Your task to perform on an android device: turn off notifications in google photos Image 0: 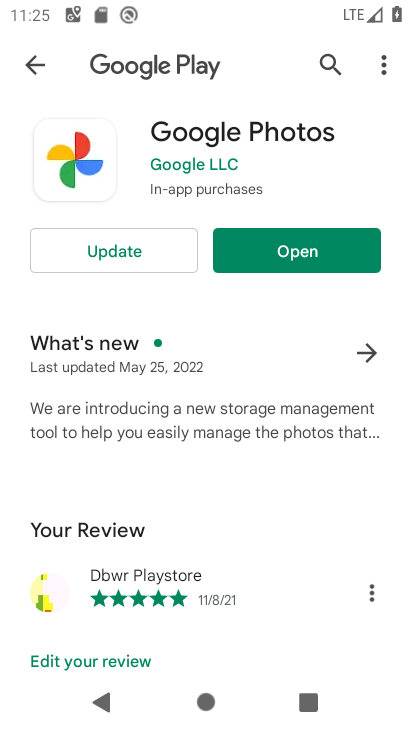
Step 0: press home button
Your task to perform on an android device: turn off notifications in google photos Image 1: 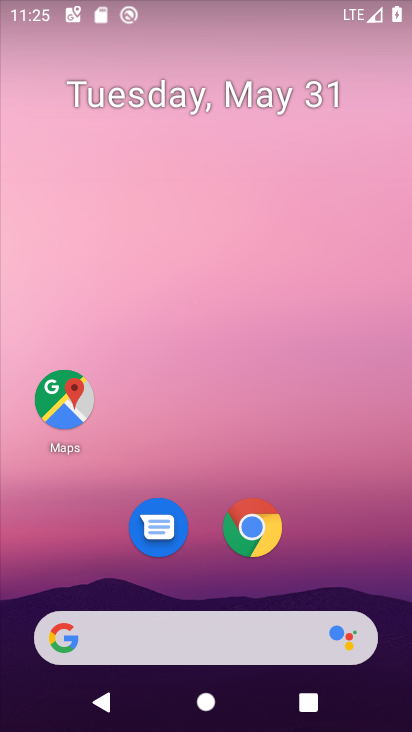
Step 1: drag from (348, 575) to (299, 7)
Your task to perform on an android device: turn off notifications in google photos Image 2: 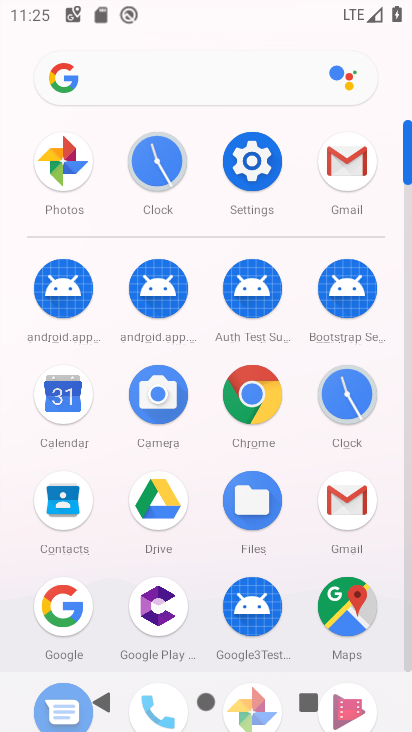
Step 2: click (58, 162)
Your task to perform on an android device: turn off notifications in google photos Image 3: 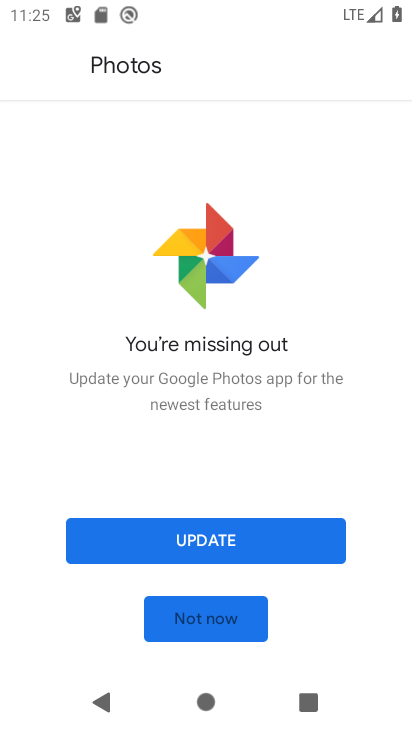
Step 3: click (185, 623)
Your task to perform on an android device: turn off notifications in google photos Image 4: 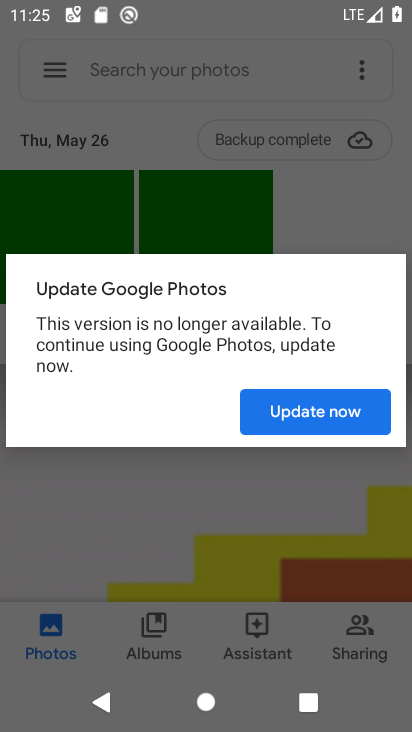
Step 4: click (288, 421)
Your task to perform on an android device: turn off notifications in google photos Image 5: 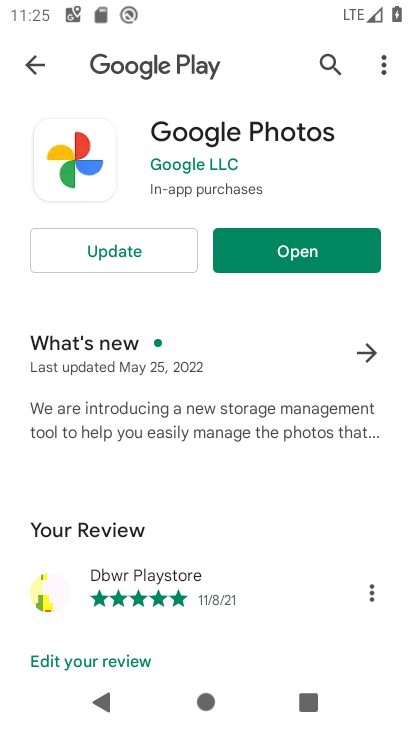
Step 5: click (290, 261)
Your task to perform on an android device: turn off notifications in google photos Image 6: 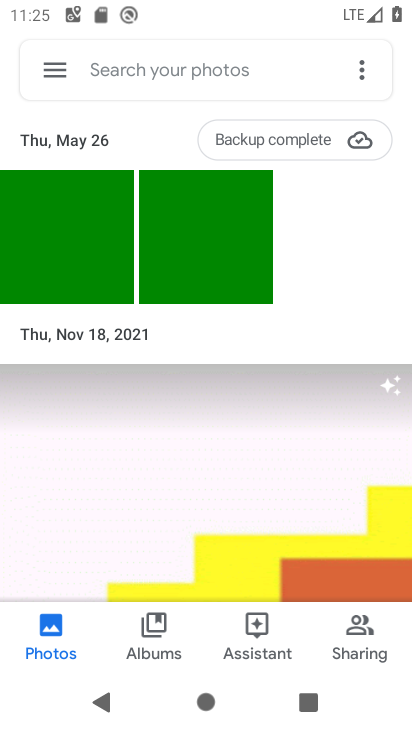
Step 6: click (49, 68)
Your task to perform on an android device: turn off notifications in google photos Image 7: 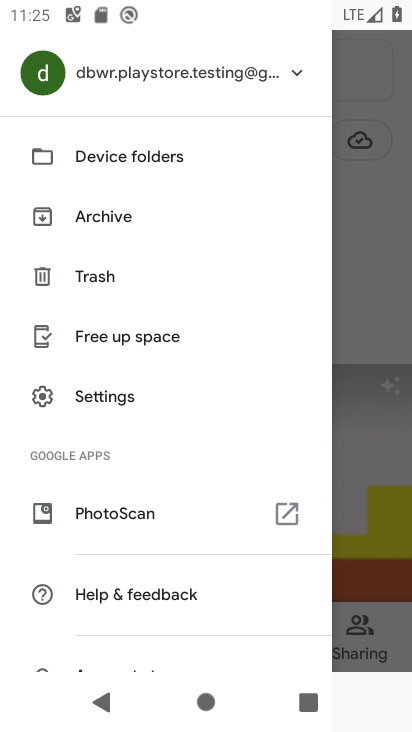
Step 7: click (86, 398)
Your task to perform on an android device: turn off notifications in google photos Image 8: 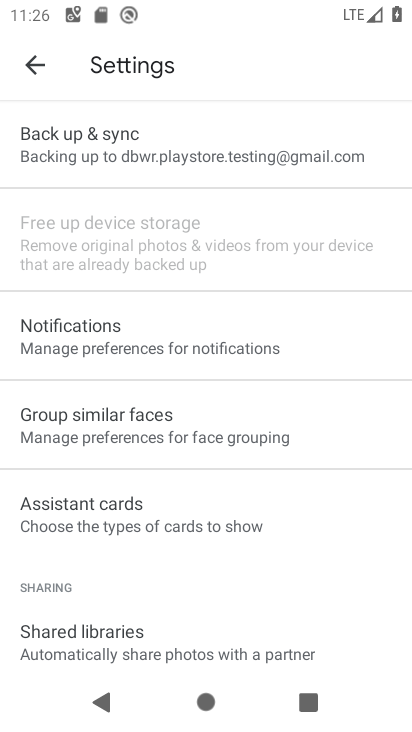
Step 8: click (93, 355)
Your task to perform on an android device: turn off notifications in google photos Image 9: 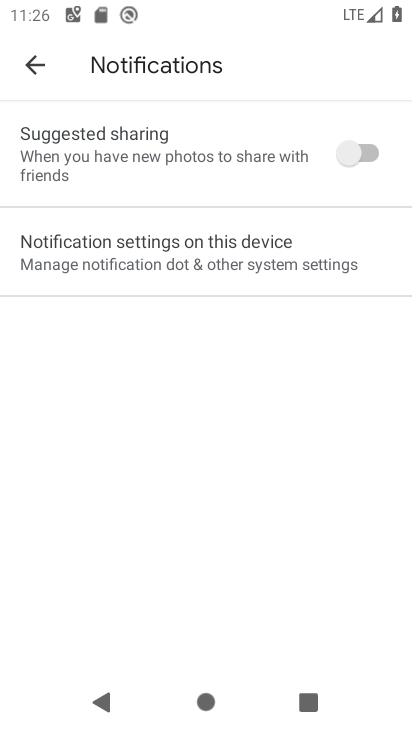
Step 9: click (122, 266)
Your task to perform on an android device: turn off notifications in google photos Image 10: 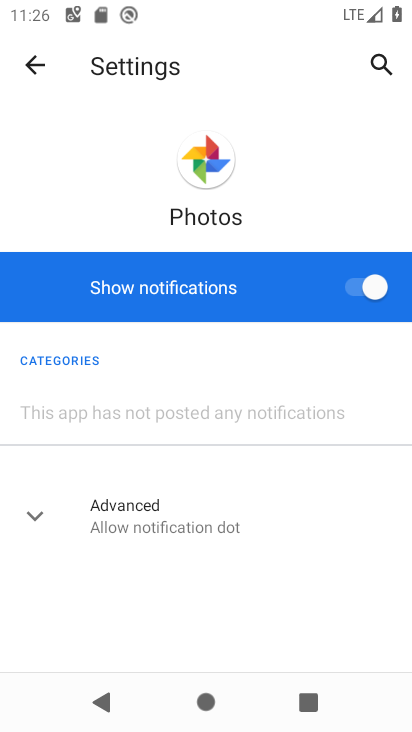
Step 10: click (357, 298)
Your task to perform on an android device: turn off notifications in google photos Image 11: 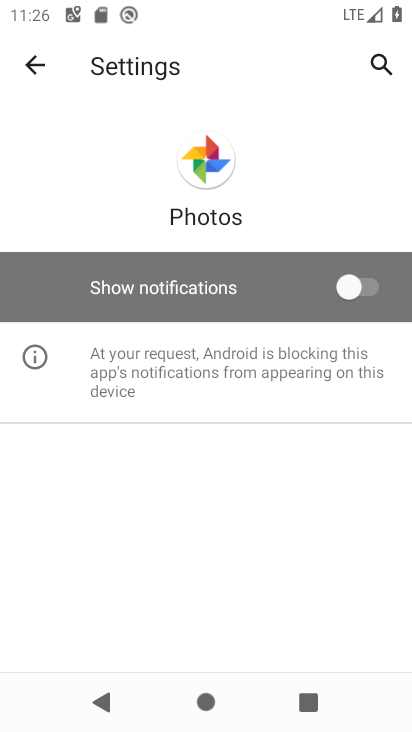
Step 11: task complete